Your task to perform on an android device: Search for pizza restaurants on Maps Image 0: 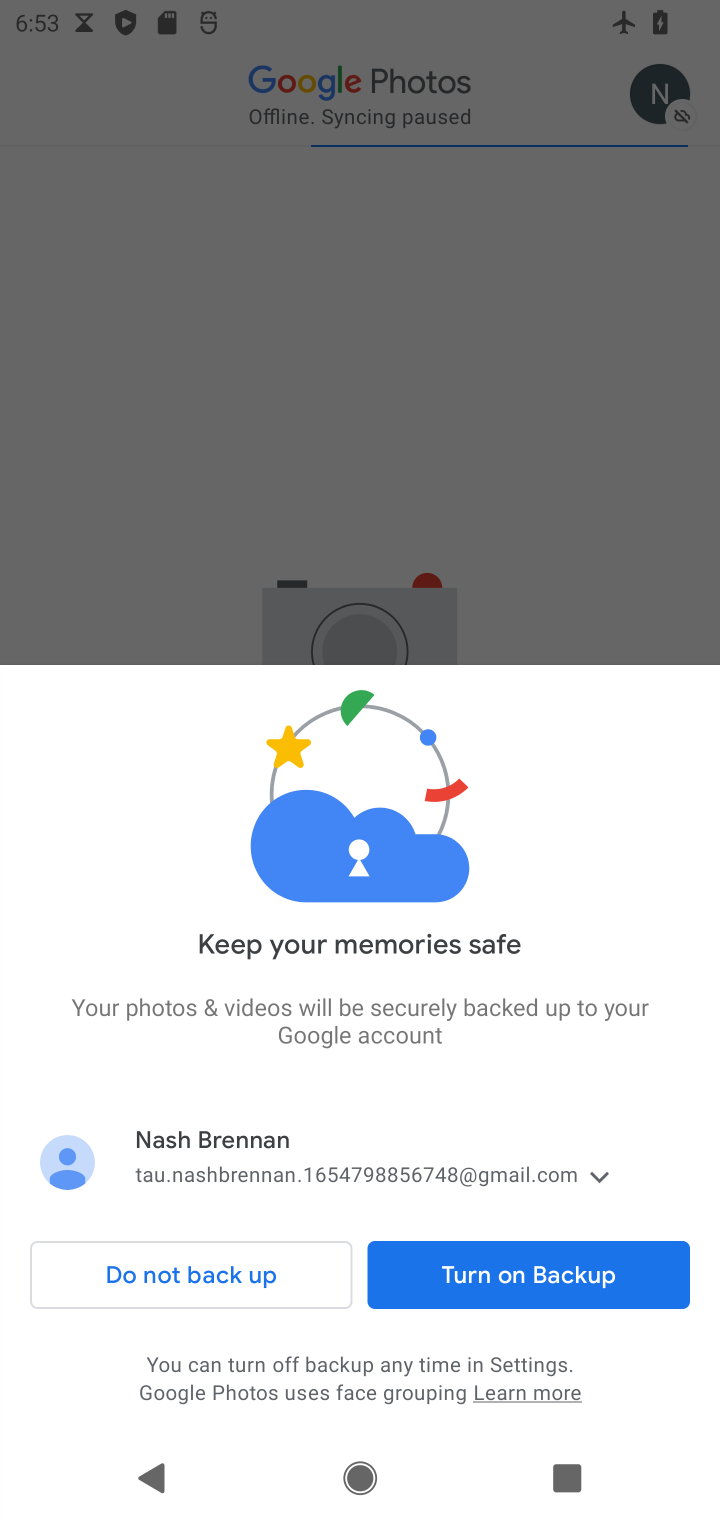
Step 0: press home button
Your task to perform on an android device: Search for pizza restaurants on Maps Image 1: 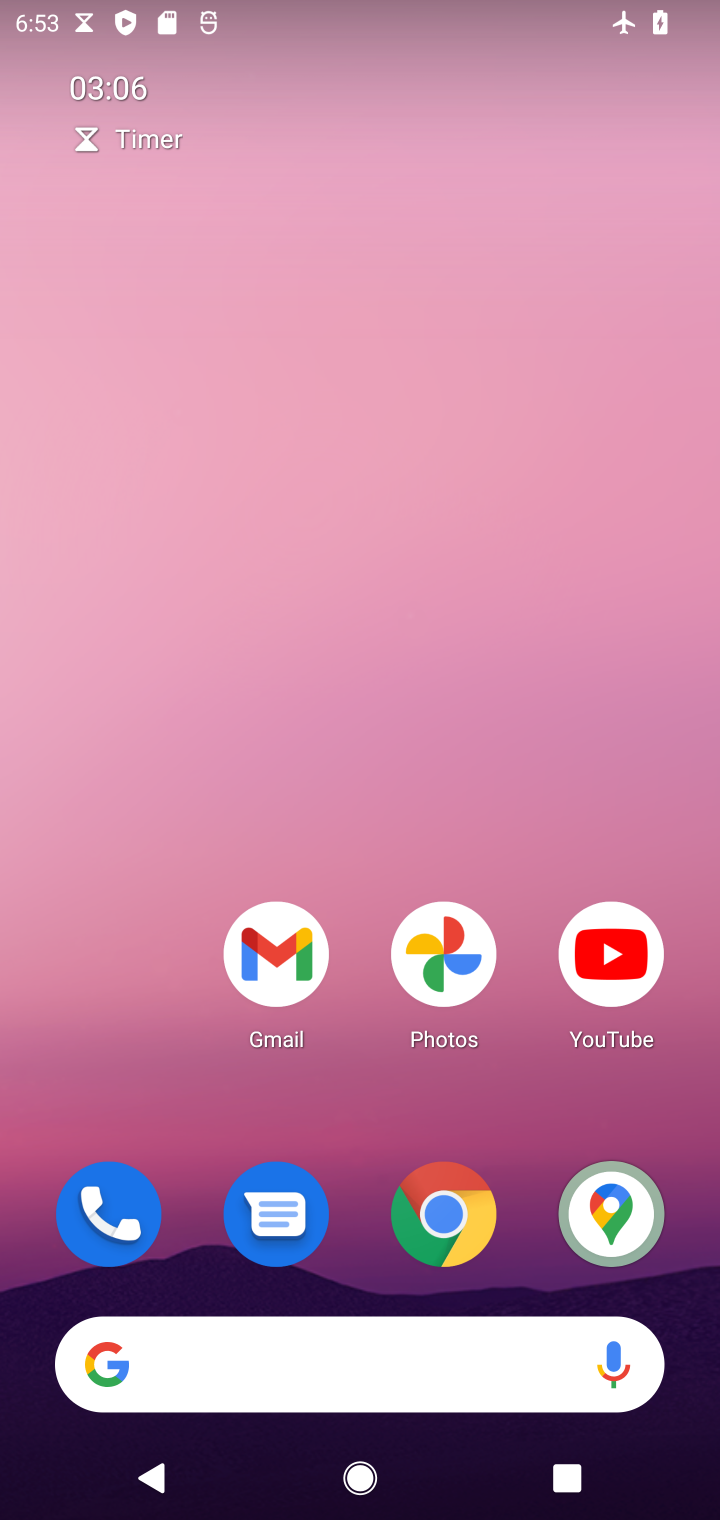
Step 1: drag from (322, 1296) to (371, 370)
Your task to perform on an android device: Search for pizza restaurants on Maps Image 2: 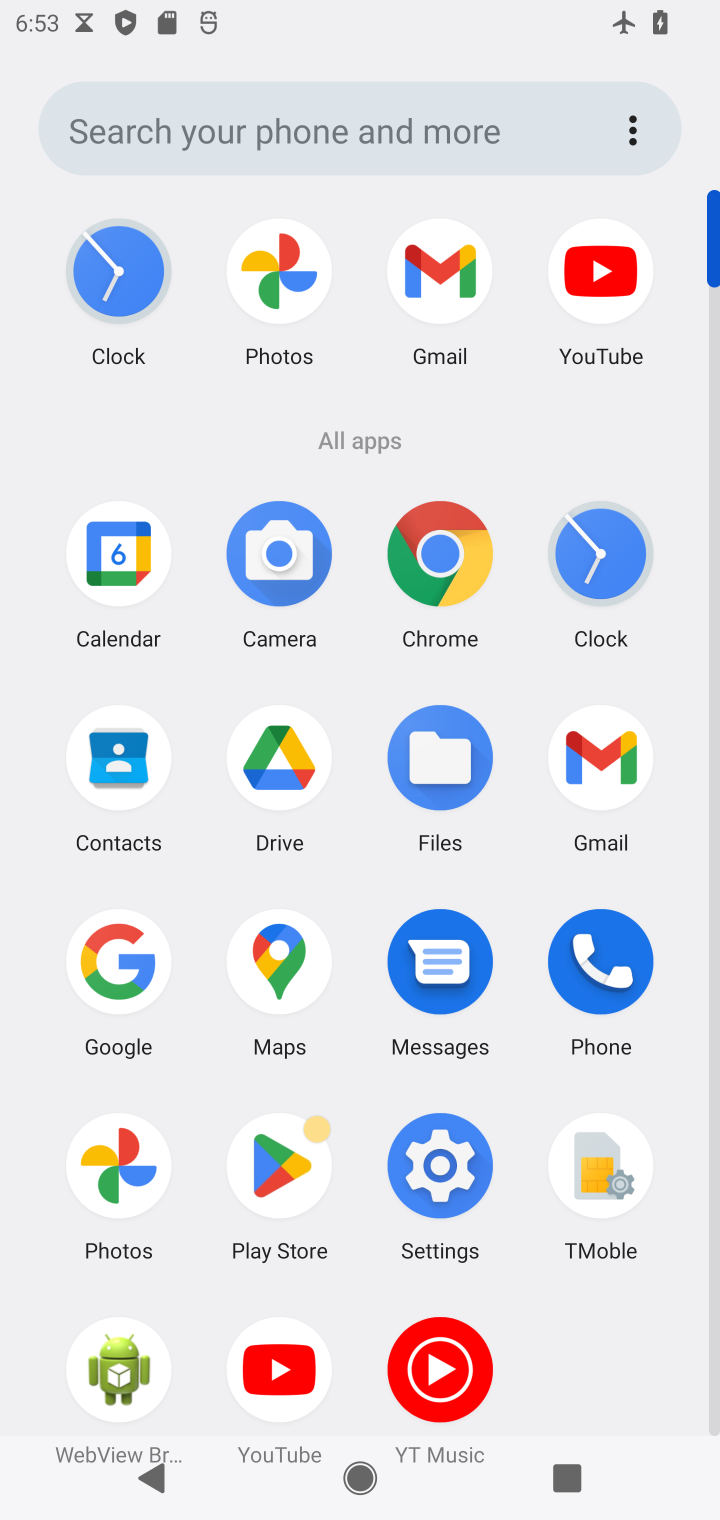
Step 2: click (276, 979)
Your task to perform on an android device: Search for pizza restaurants on Maps Image 3: 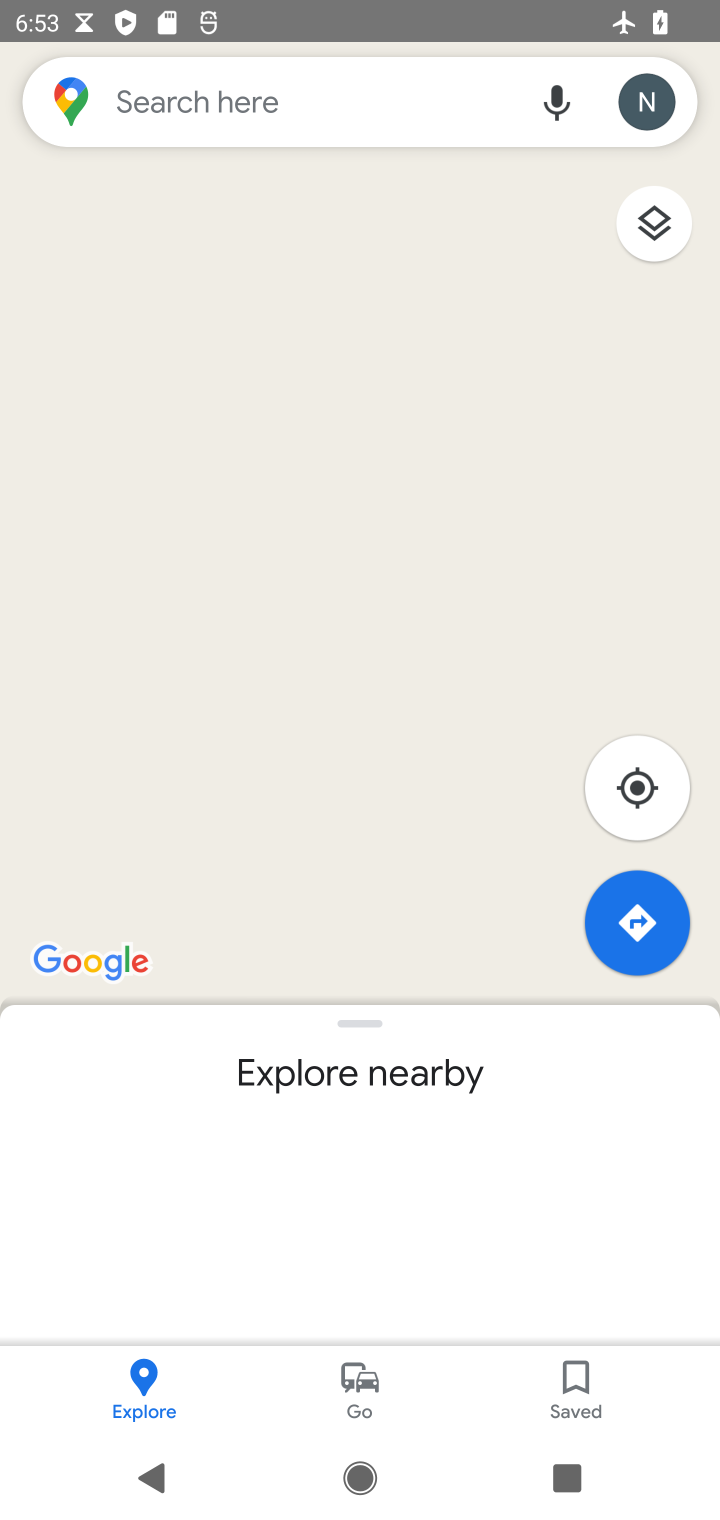
Step 3: click (302, 113)
Your task to perform on an android device: Search for pizza restaurants on Maps Image 4: 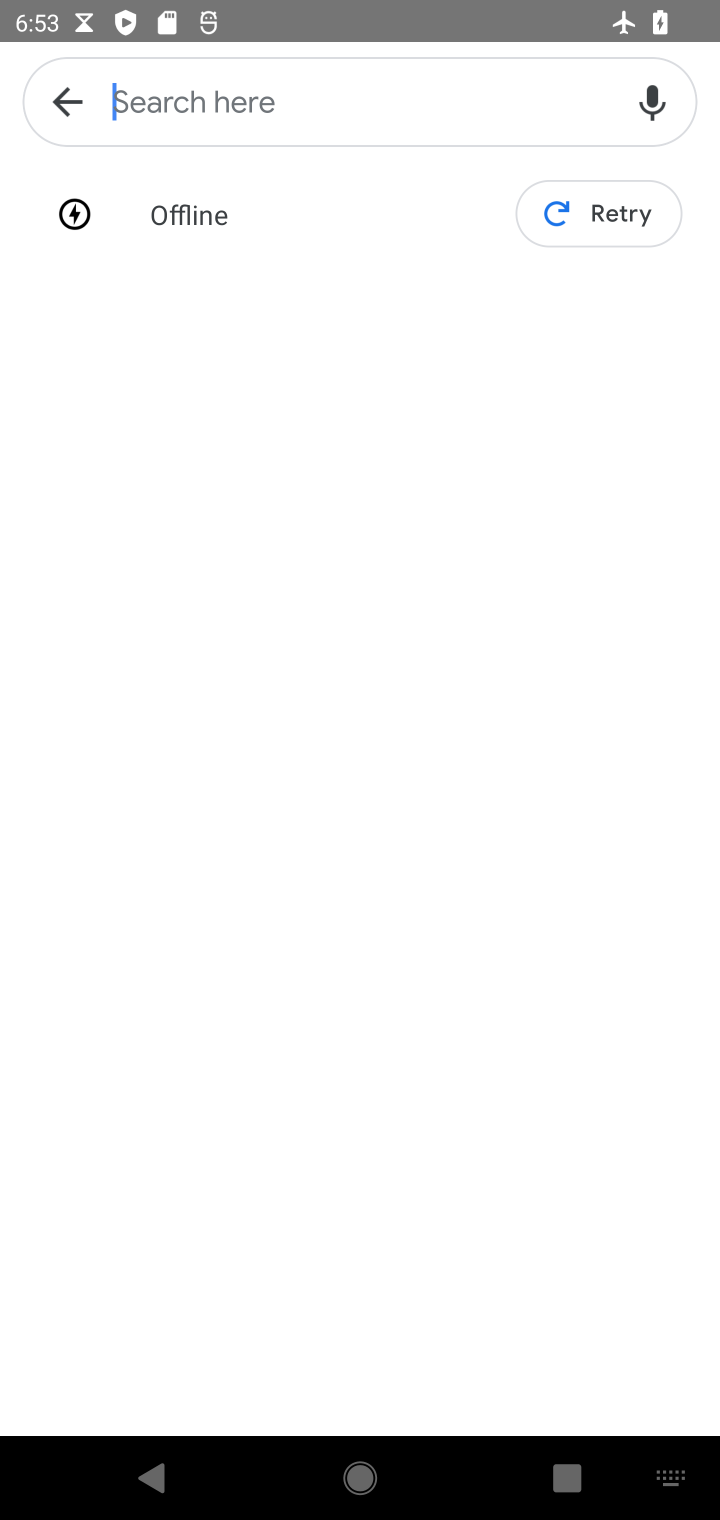
Step 4: type "Pizza restaurantss"
Your task to perform on an android device: Search for pizza restaurants on Maps Image 5: 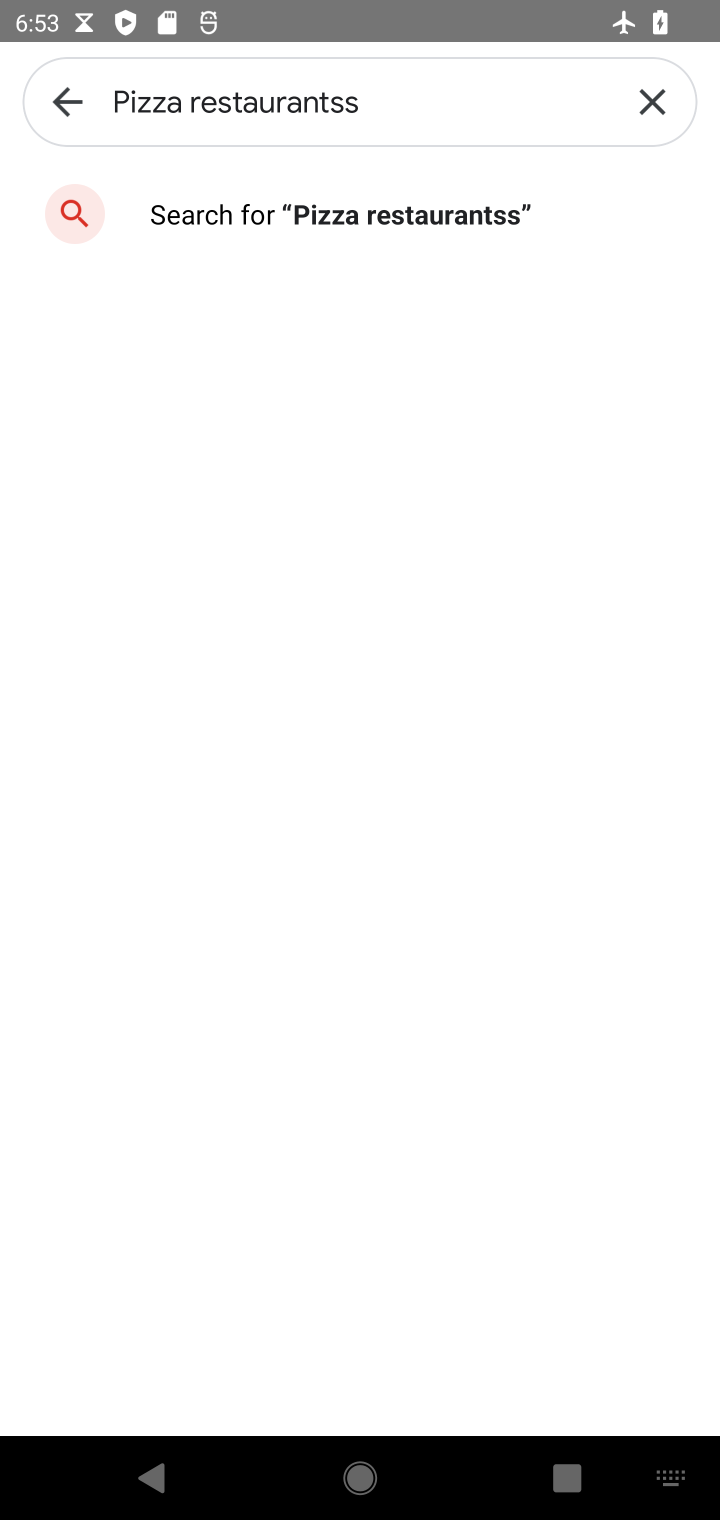
Step 5: click (412, 214)
Your task to perform on an android device: Search for pizza restaurants on Maps Image 6: 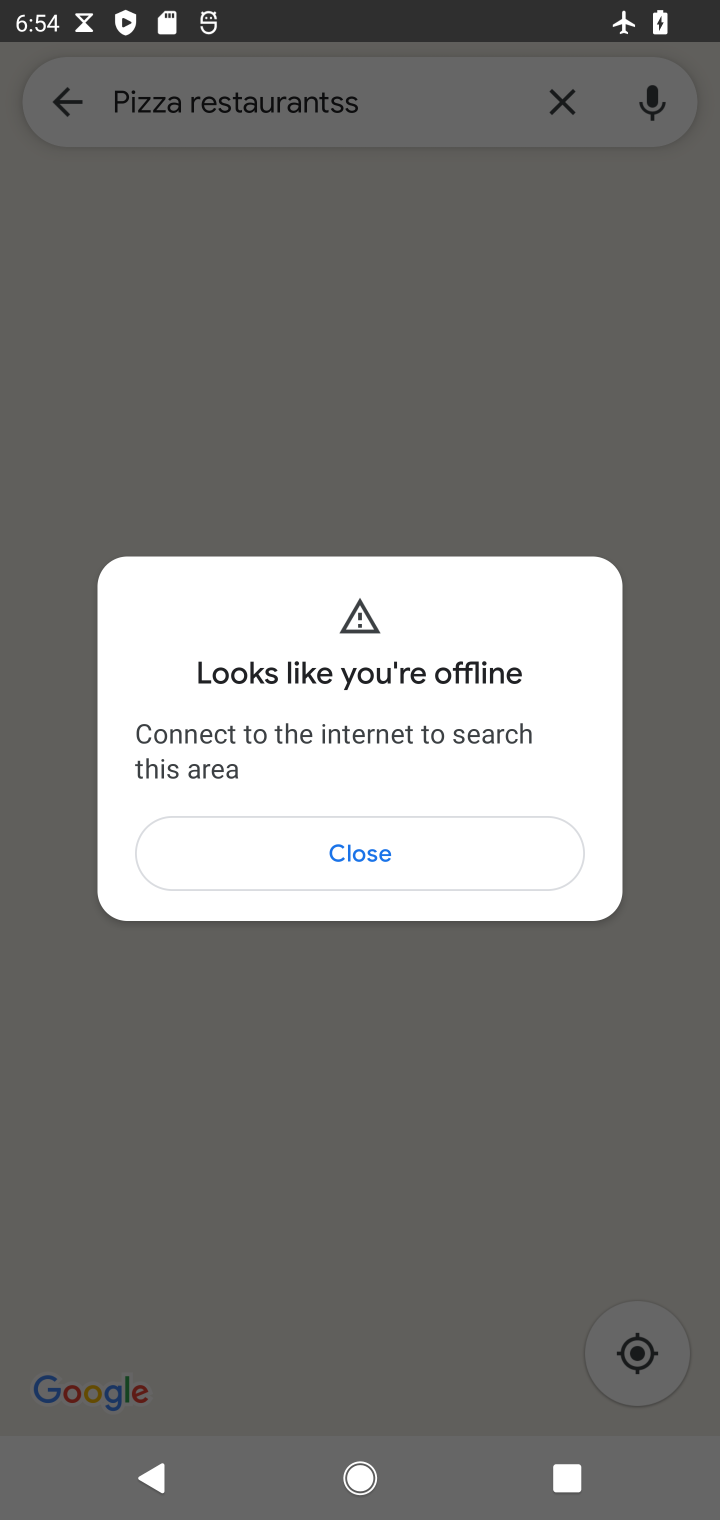
Step 6: click (478, 844)
Your task to perform on an android device: Search for pizza restaurants on Maps Image 7: 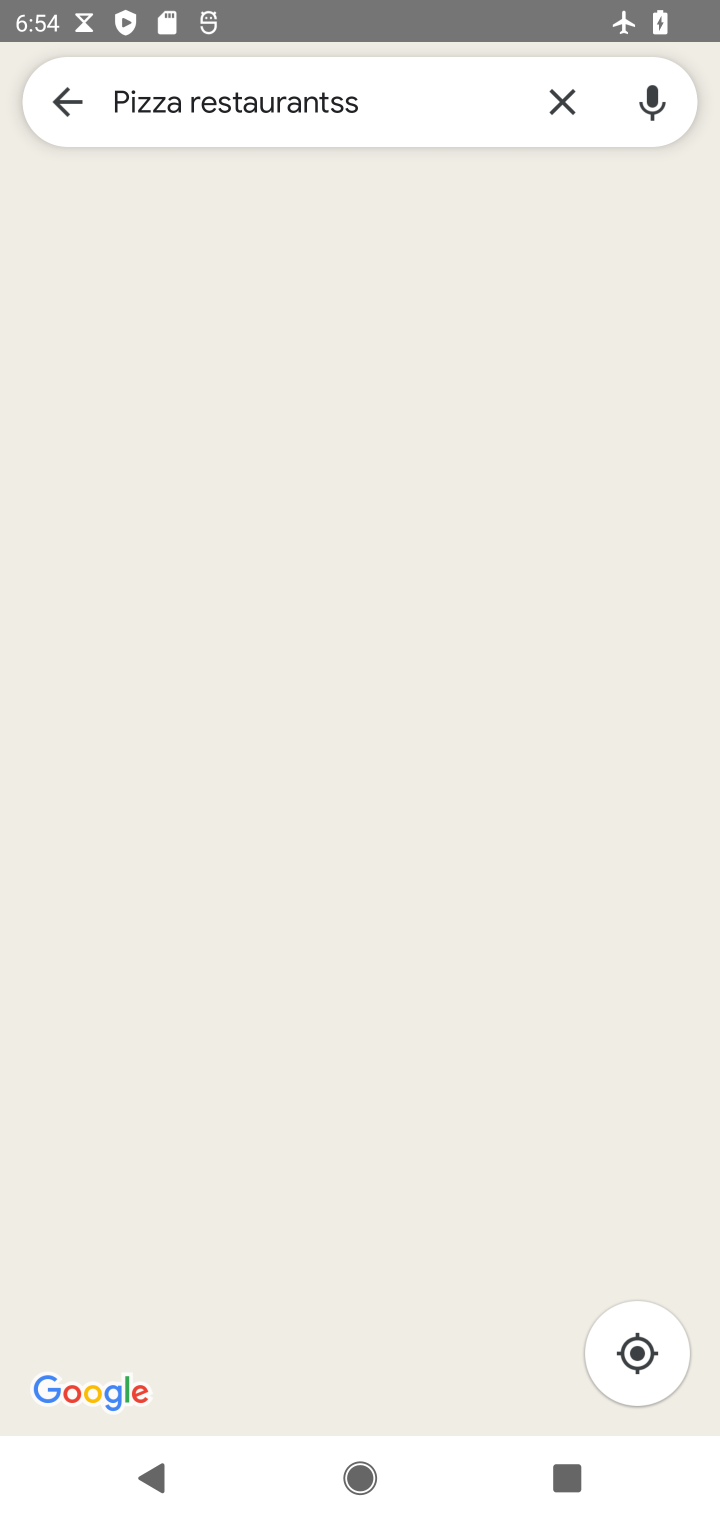
Step 7: task complete